Your task to perform on an android device: turn on wifi Image 0: 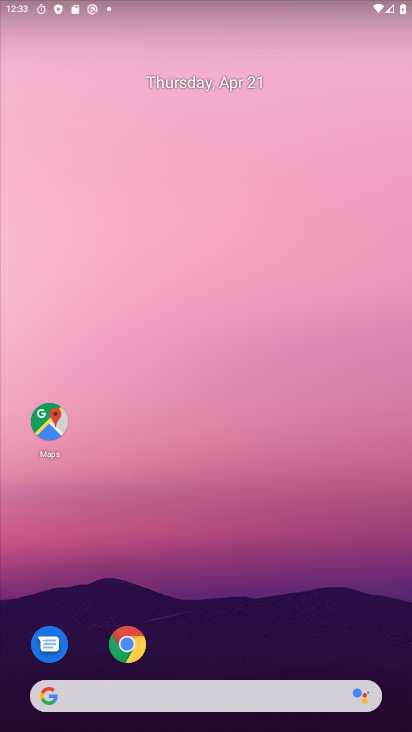
Step 0: drag from (200, 14) to (226, 556)
Your task to perform on an android device: turn on wifi Image 1: 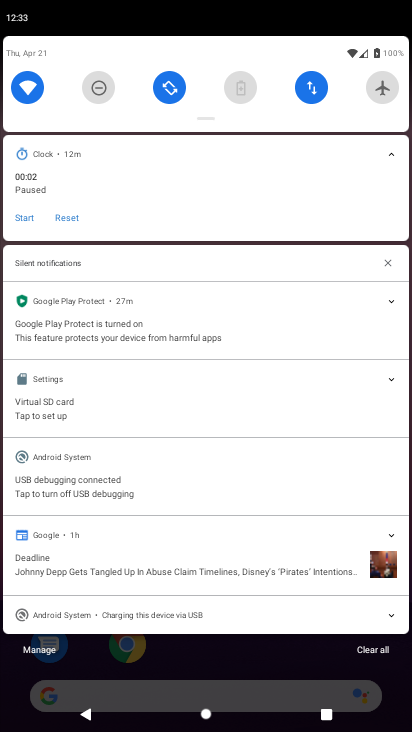
Step 1: click (384, 649)
Your task to perform on an android device: turn on wifi Image 2: 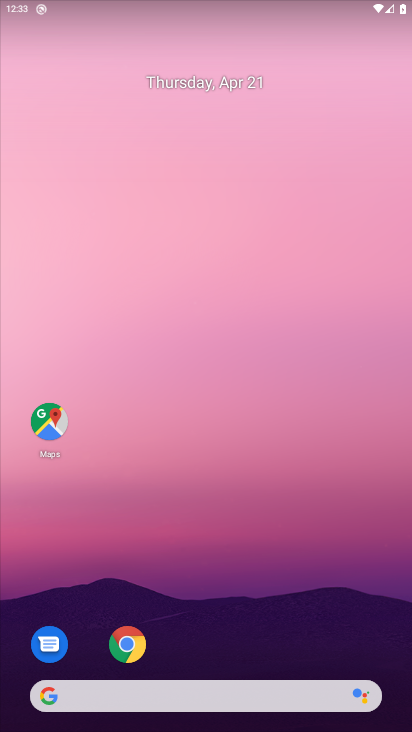
Step 2: task complete